Your task to perform on an android device: change your default location settings in chrome Image 0: 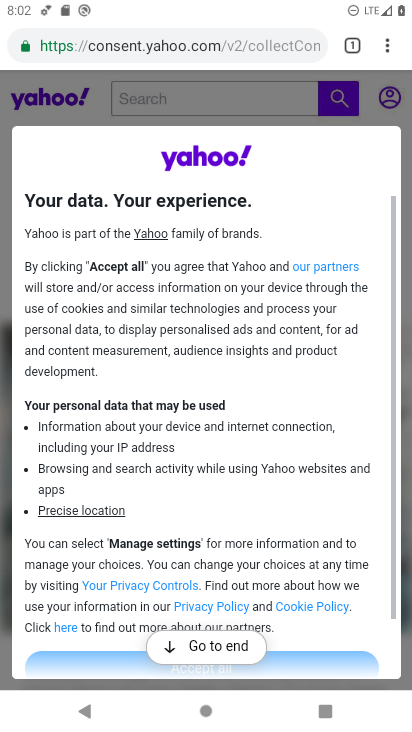
Step 0: press home button
Your task to perform on an android device: change your default location settings in chrome Image 1: 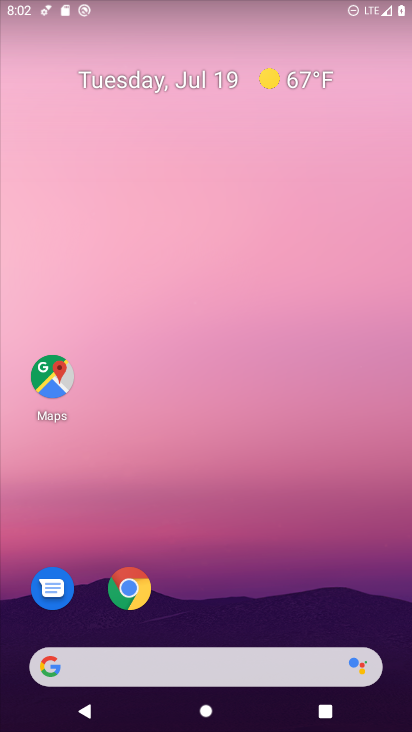
Step 1: drag from (338, 582) to (325, 71)
Your task to perform on an android device: change your default location settings in chrome Image 2: 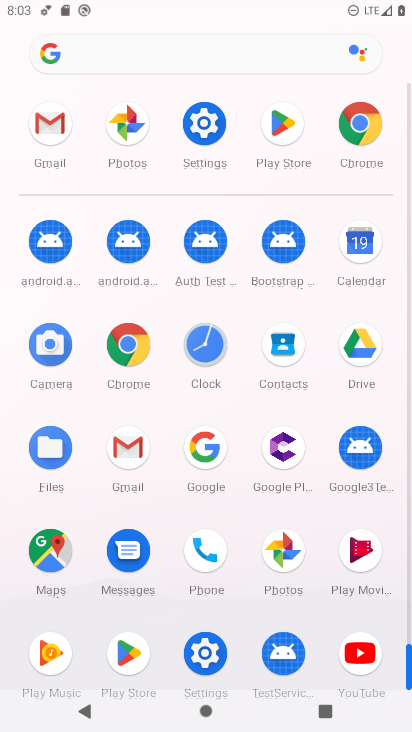
Step 2: click (134, 348)
Your task to perform on an android device: change your default location settings in chrome Image 3: 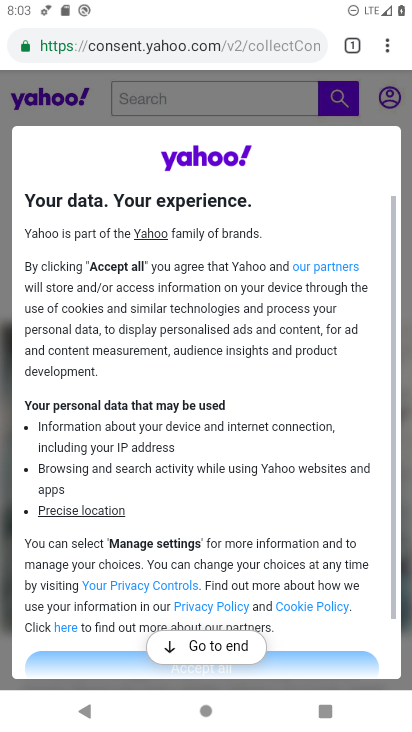
Step 3: click (387, 49)
Your task to perform on an android device: change your default location settings in chrome Image 4: 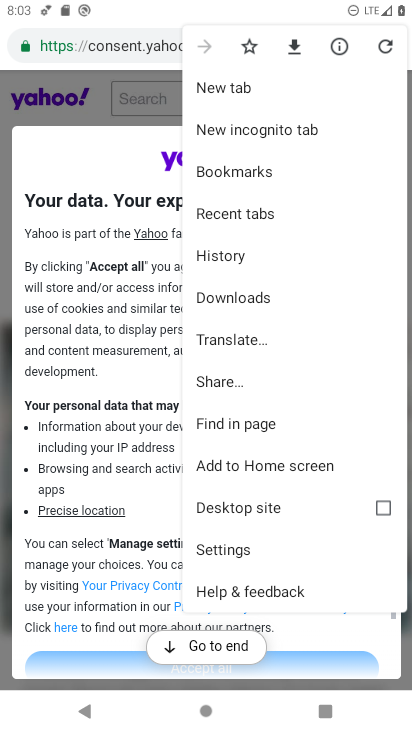
Step 4: click (259, 552)
Your task to perform on an android device: change your default location settings in chrome Image 5: 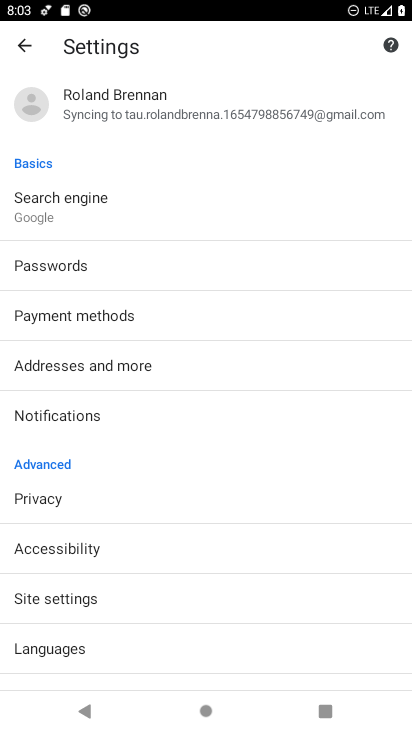
Step 5: drag from (313, 591) to (305, 498)
Your task to perform on an android device: change your default location settings in chrome Image 6: 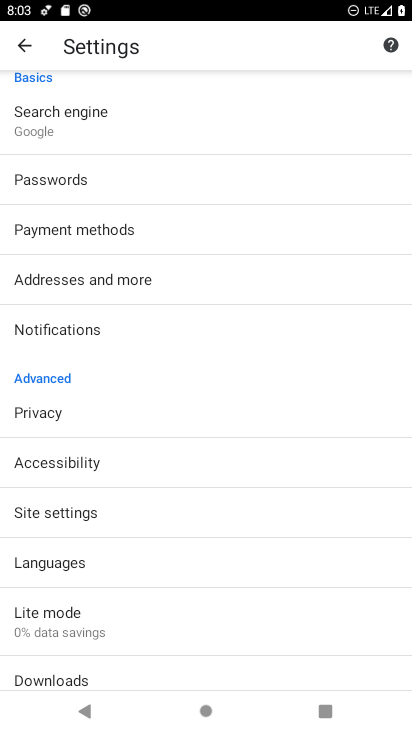
Step 6: drag from (308, 595) to (302, 482)
Your task to perform on an android device: change your default location settings in chrome Image 7: 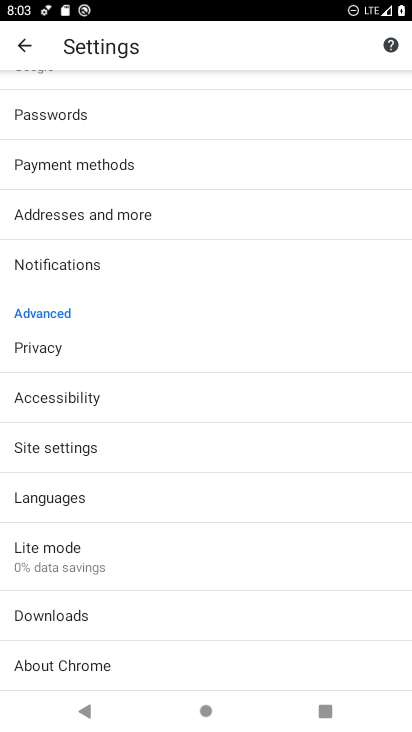
Step 7: click (282, 446)
Your task to perform on an android device: change your default location settings in chrome Image 8: 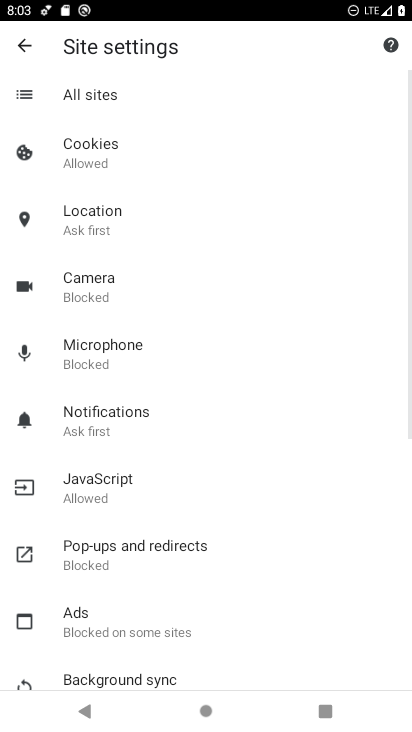
Step 8: drag from (302, 440) to (308, 364)
Your task to perform on an android device: change your default location settings in chrome Image 9: 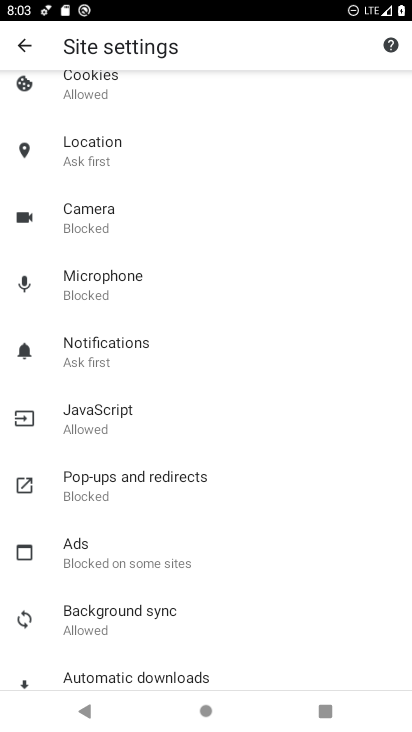
Step 9: drag from (321, 479) to (319, 354)
Your task to perform on an android device: change your default location settings in chrome Image 10: 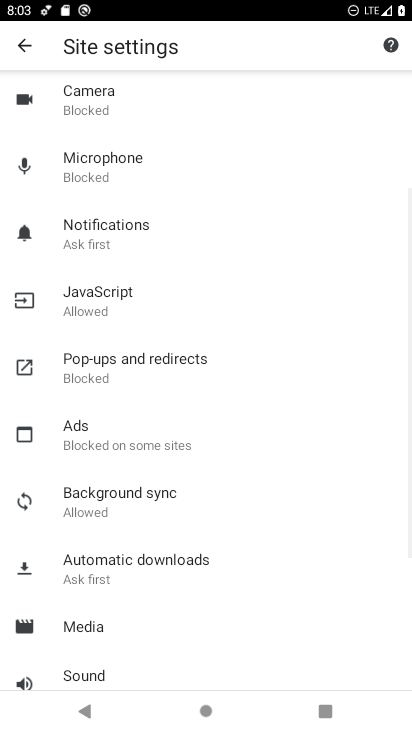
Step 10: drag from (317, 234) to (310, 383)
Your task to perform on an android device: change your default location settings in chrome Image 11: 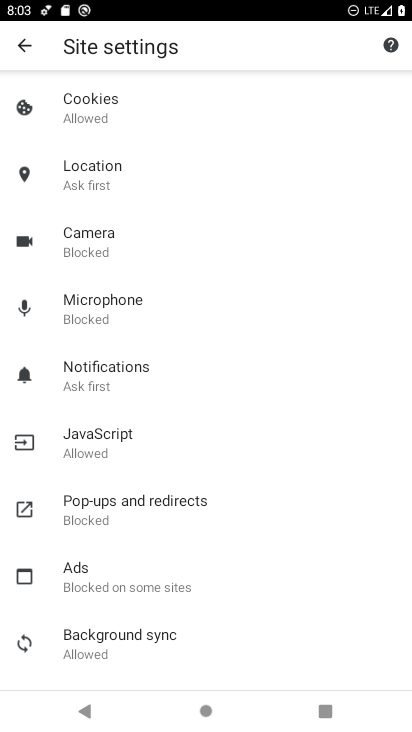
Step 11: drag from (263, 210) to (270, 305)
Your task to perform on an android device: change your default location settings in chrome Image 12: 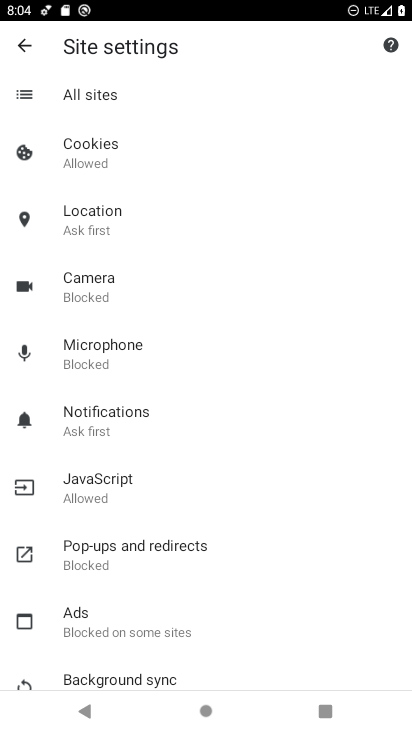
Step 12: click (148, 223)
Your task to perform on an android device: change your default location settings in chrome Image 13: 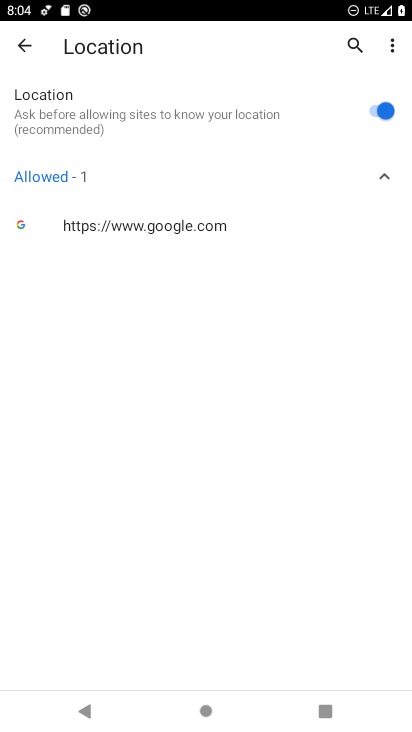
Step 13: click (368, 115)
Your task to perform on an android device: change your default location settings in chrome Image 14: 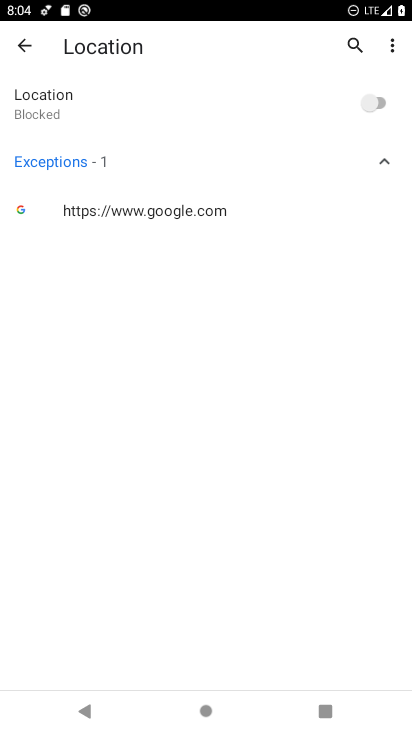
Step 14: task complete